Your task to perform on an android device: turn on notifications settings in the gmail app Image 0: 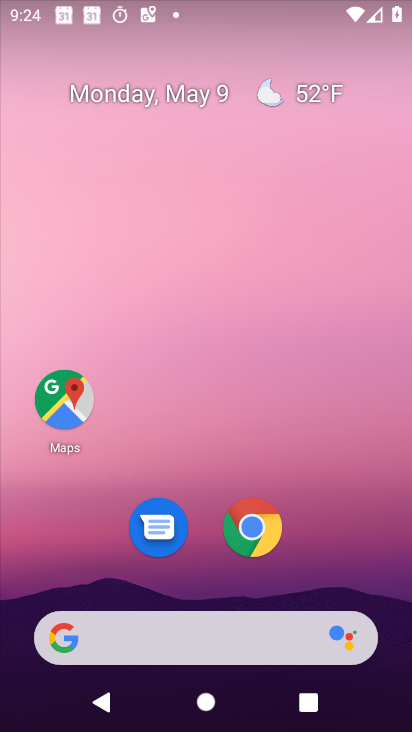
Step 0: drag from (379, 567) to (337, 135)
Your task to perform on an android device: turn on notifications settings in the gmail app Image 1: 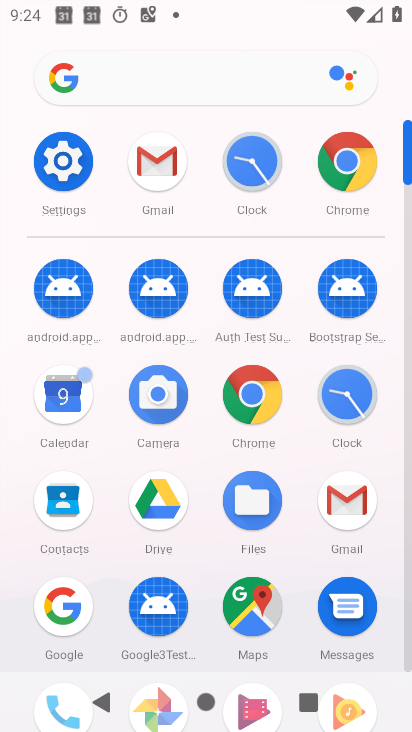
Step 1: click (324, 494)
Your task to perform on an android device: turn on notifications settings in the gmail app Image 2: 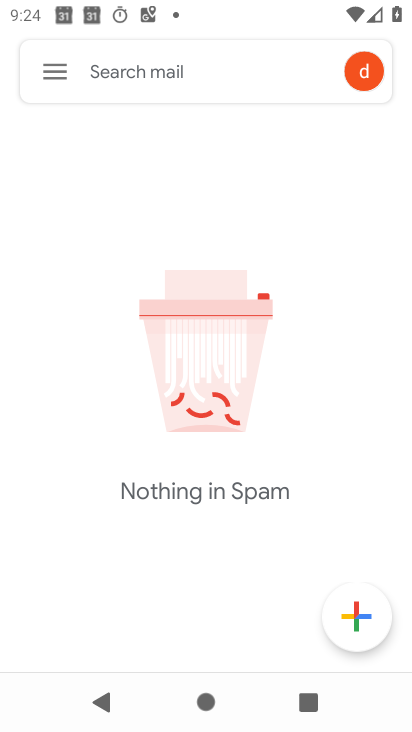
Step 2: click (50, 59)
Your task to perform on an android device: turn on notifications settings in the gmail app Image 3: 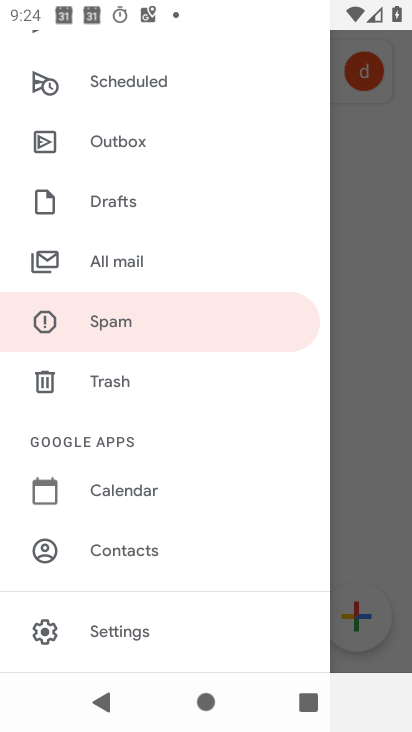
Step 3: drag from (212, 552) to (206, 98)
Your task to perform on an android device: turn on notifications settings in the gmail app Image 4: 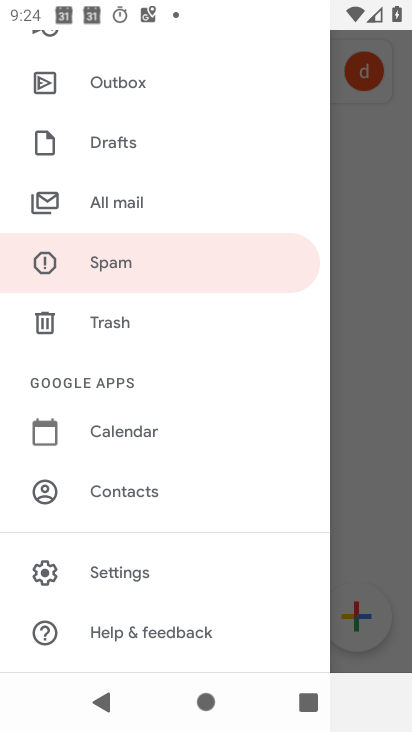
Step 4: click (138, 571)
Your task to perform on an android device: turn on notifications settings in the gmail app Image 5: 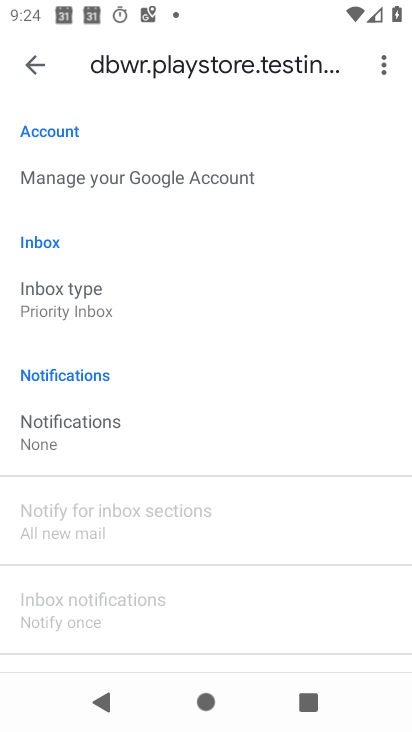
Step 5: click (71, 416)
Your task to perform on an android device: turn on notifications settings in the gmail app Image 6: 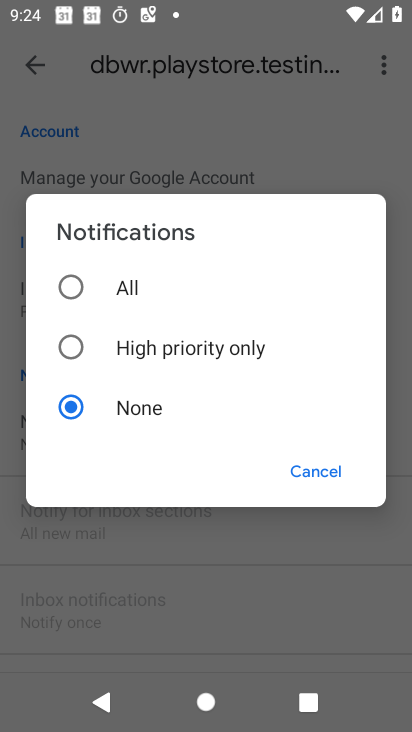
Step 6: click (68, 294)
Your task to perform on an android device: turn on notifications settings in the gmail app Image 7: 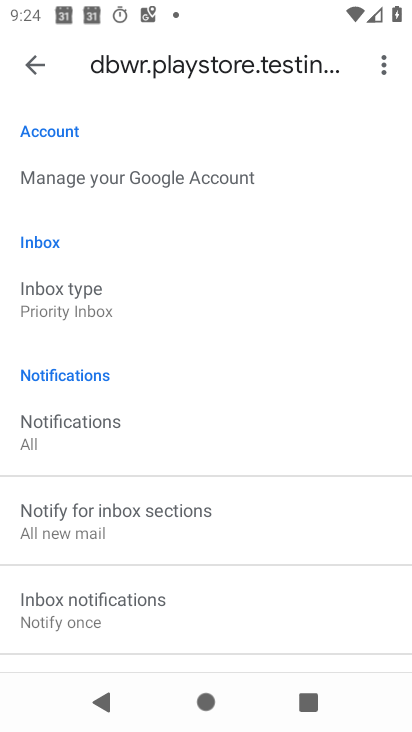
Step 7: task complete